Your task to perform on an android device: Go to eBay Image 0: 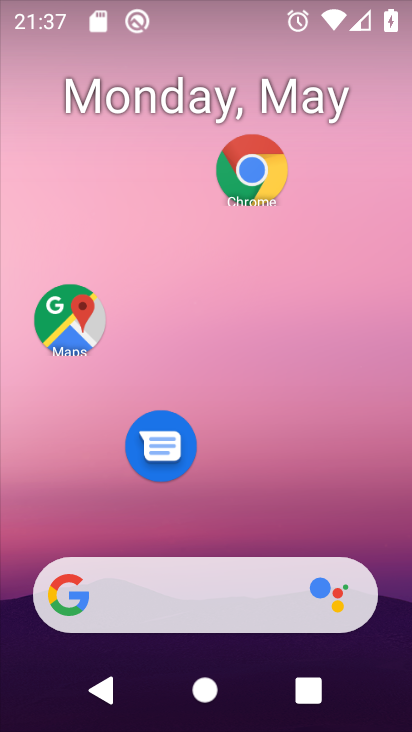
Step 0: press home button
Your task to perform on an android device: Go to eBay Image 1: 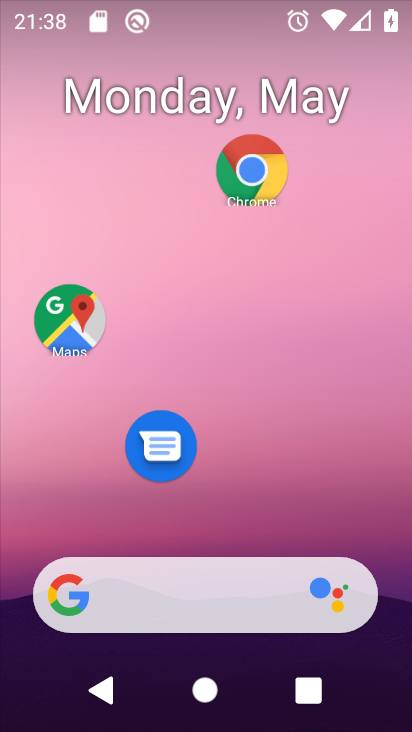
Step 1: drag from (235, 535) to (242, 13)
Your task to perform on an android device: Go to eBay Image 2: 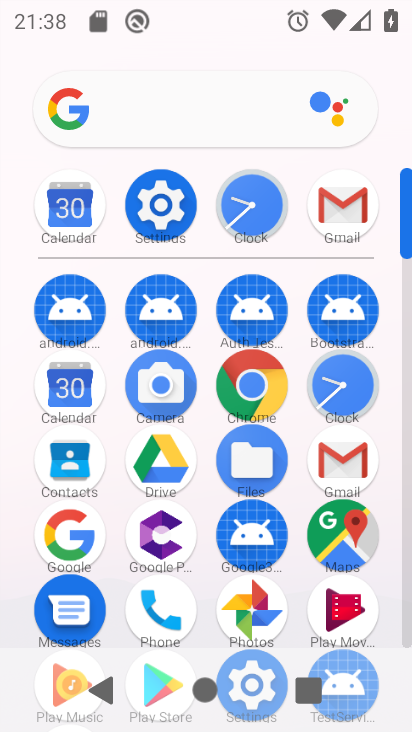
Step 2: click (249, 375)
Your task to perform on an android device: Go to eBay Image 3: 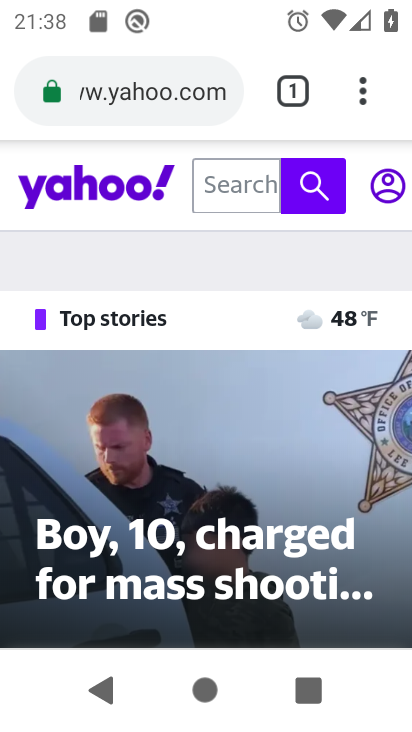
Step 3: click (289, 85)
Your task to perform on an android device: Go to eBay Image 4: 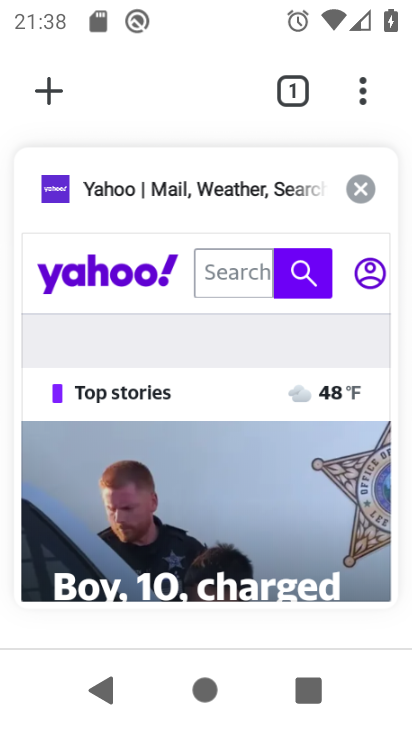
Step 4: click (362, 179)
Your task to perform on an android device: Go to eBay Image 5: 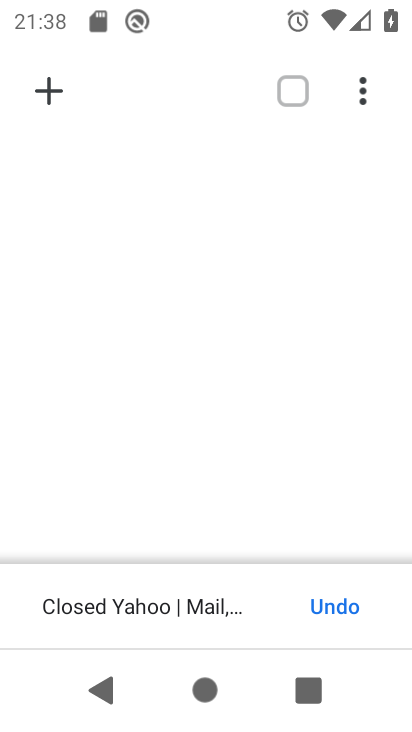
Step 5: click (64, 92)
Your task to perform on an android device: Go to eBay Image 6: 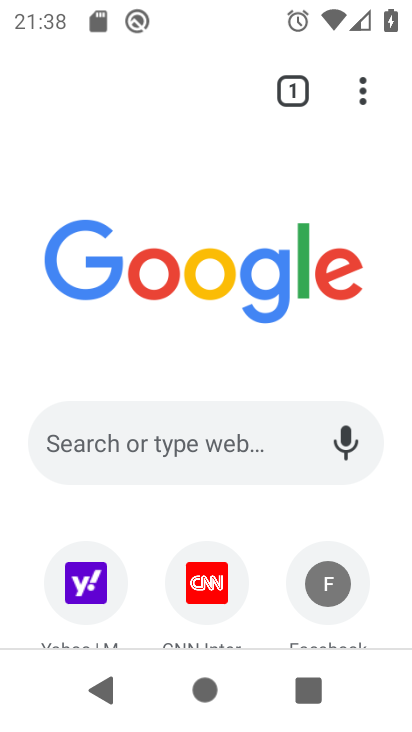
Step 6: drag from (149, 534) to (175, 224)
Your task to perform on an android device: Go to eBay Image 7: 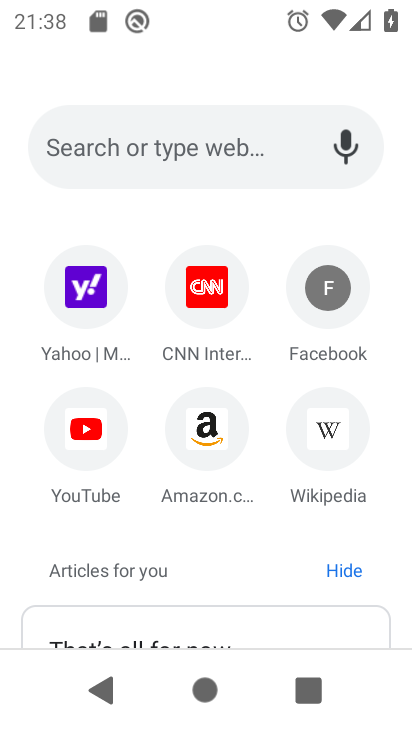
Step 7: click (129, 139)
Your task to perform on an android device: Go to eBay Image 8: 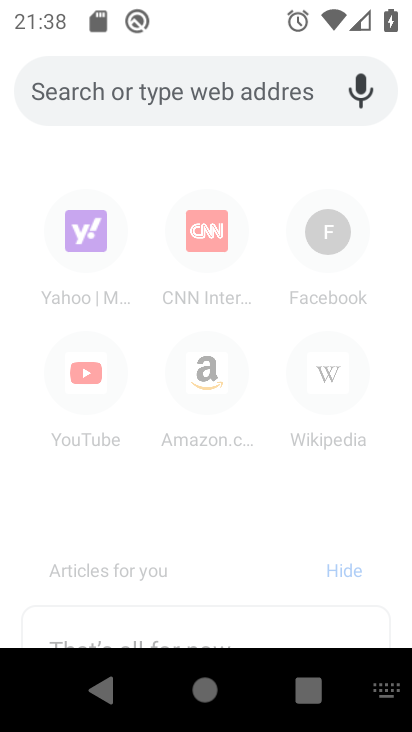
Step 8: type "ebay"
Your task to perform on an android device: Go to eBay Image 9: 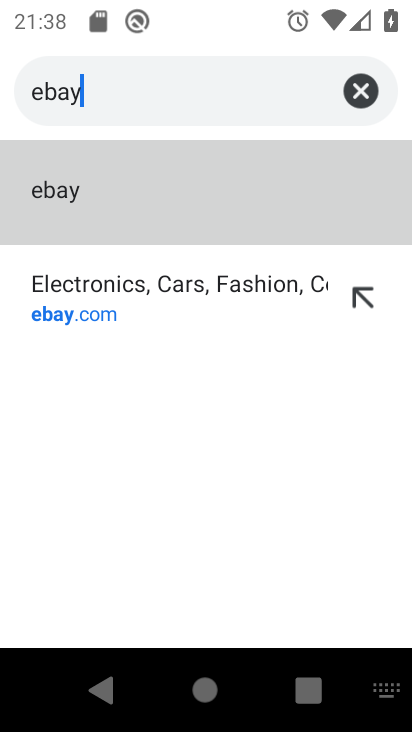
Step 9: click (147, 301)
Your task to perform on an android device: Go to eBay Image 10: 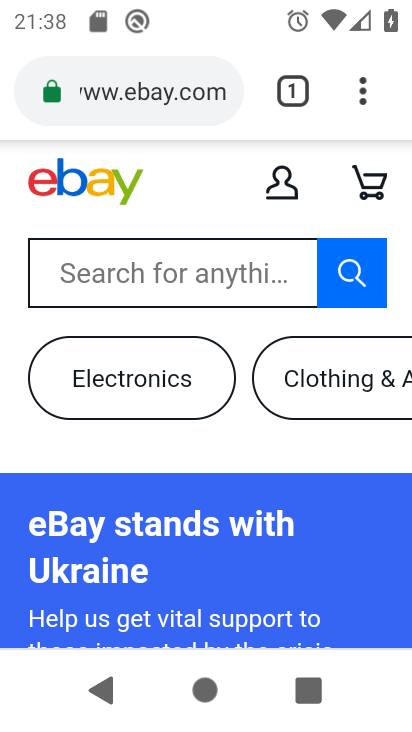
Step 10: task complete